Your task to perform on an android device: turn off location history Image 0: 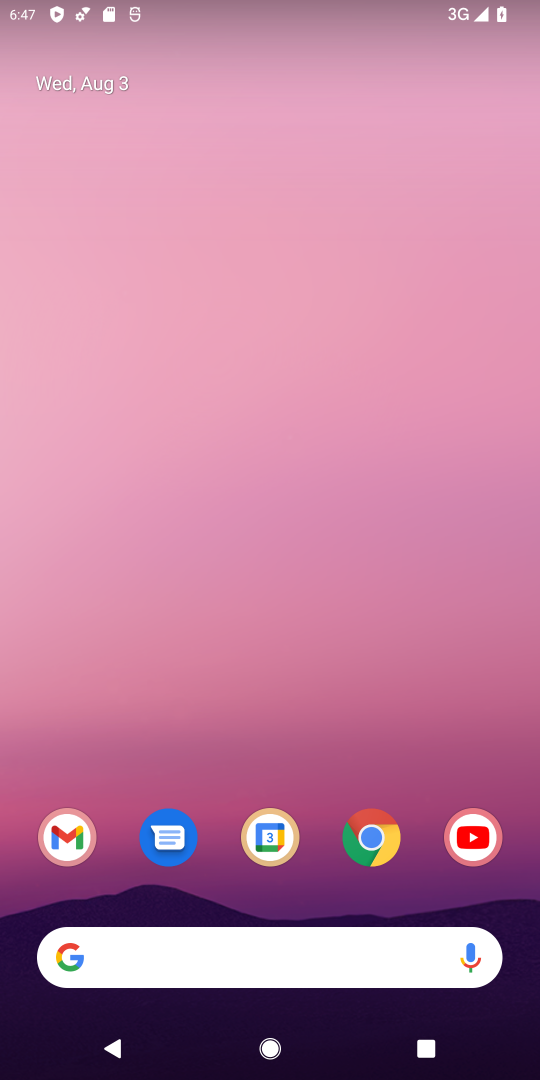
Step 0: press home button
Your task to perform on an android device: turn off location history Image 1: 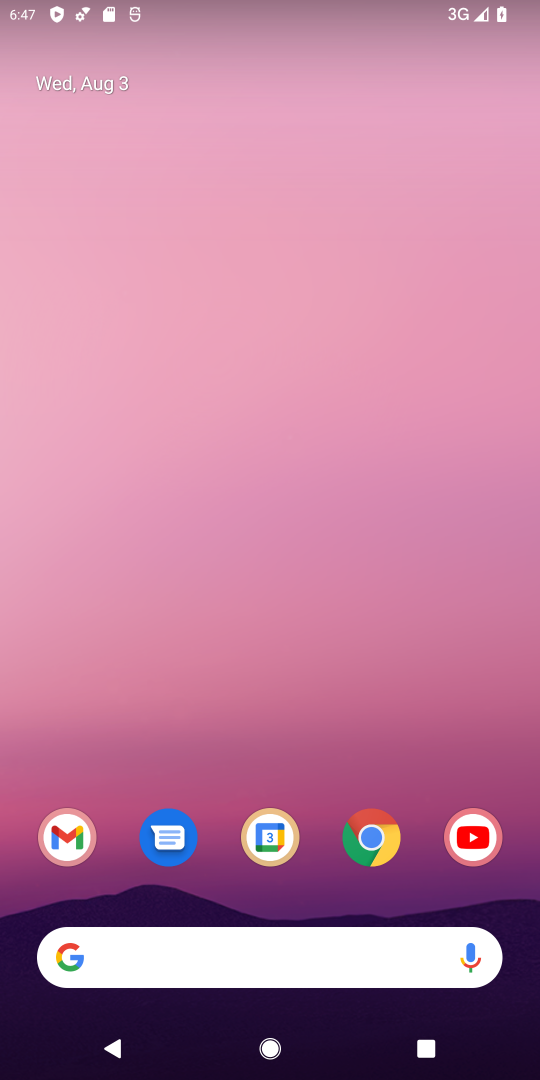
Step 1: drag from (307, 772) to (292, 61)
Your task to perform on an android device: turn off location history Image 2: 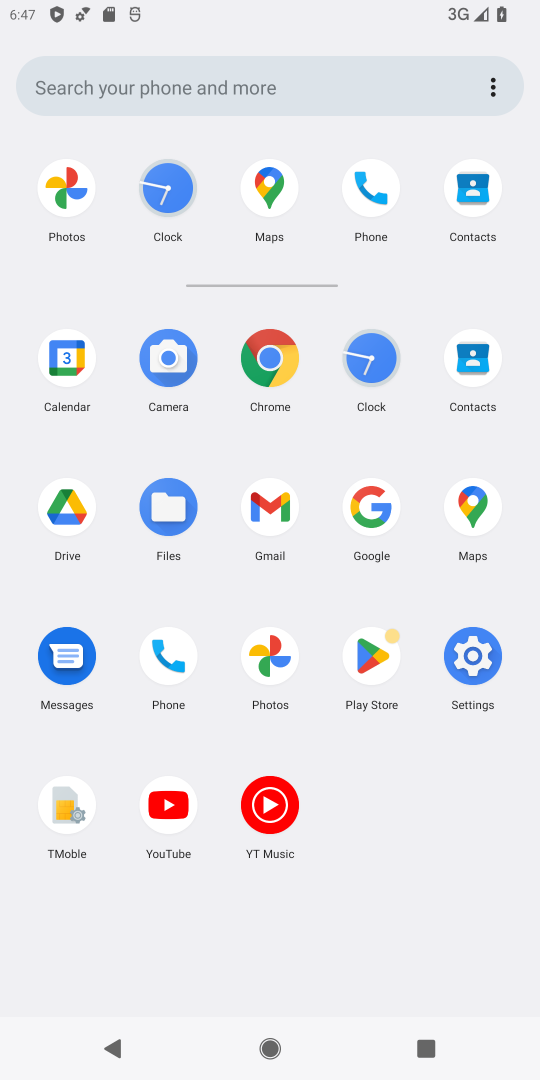
Step 2: click (461, 637)
Your task to perform on an android device: turn off location history Image 3: 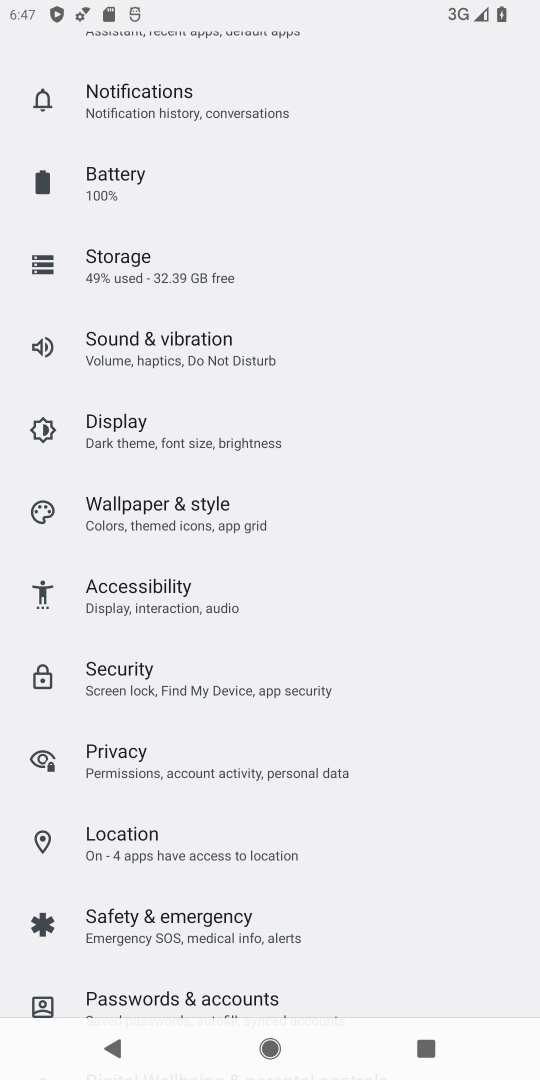
Step 3: click (129, 819)
Your task to perform on an android device: turn off location history Image 4: 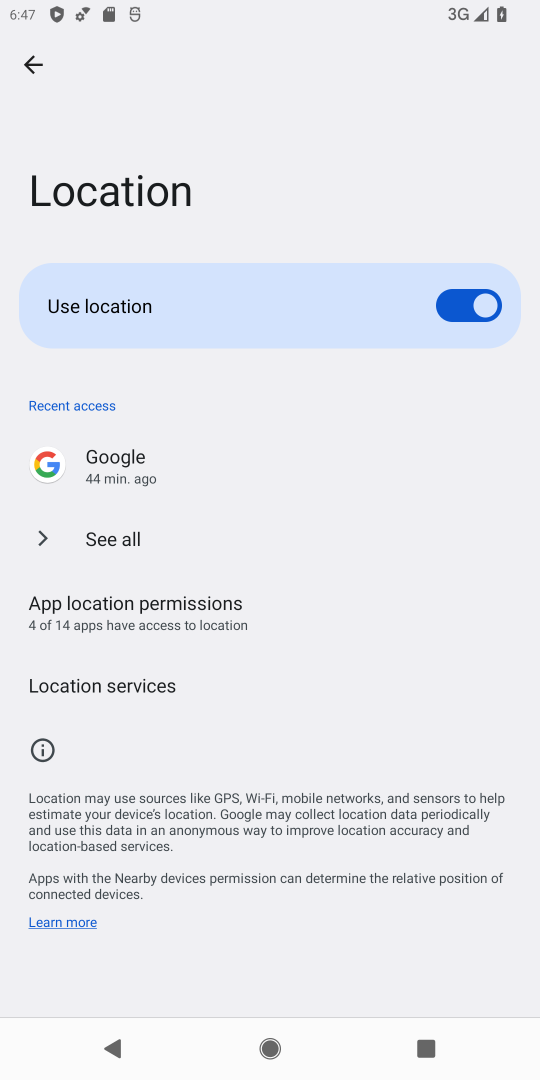
Step 4: click (57, 686)
Your task to perform on an android device: turn off location history Image 5: 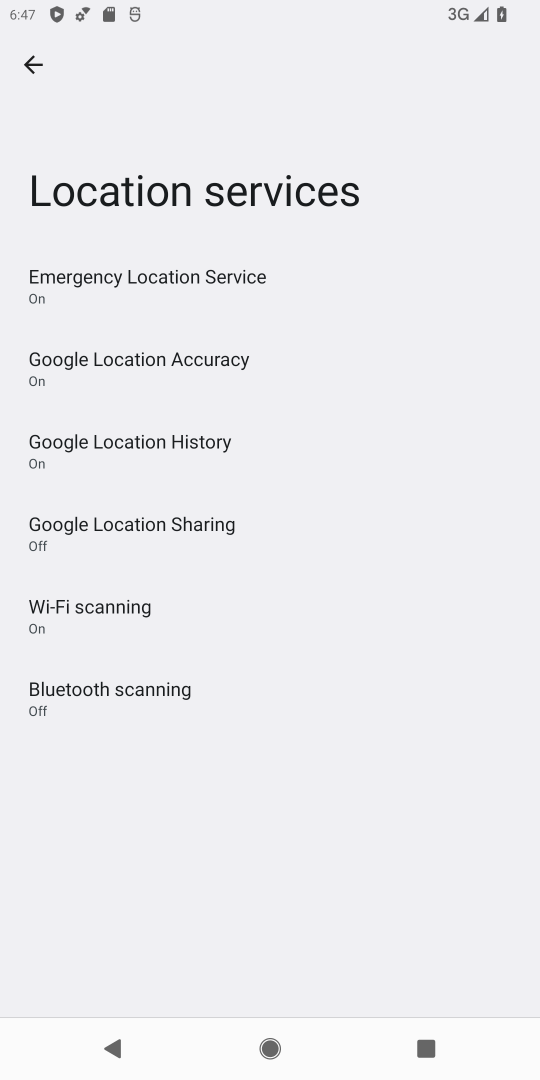
Step 5: click (171, 437)
Your task to perform on an android device: turn off location history Image 6: 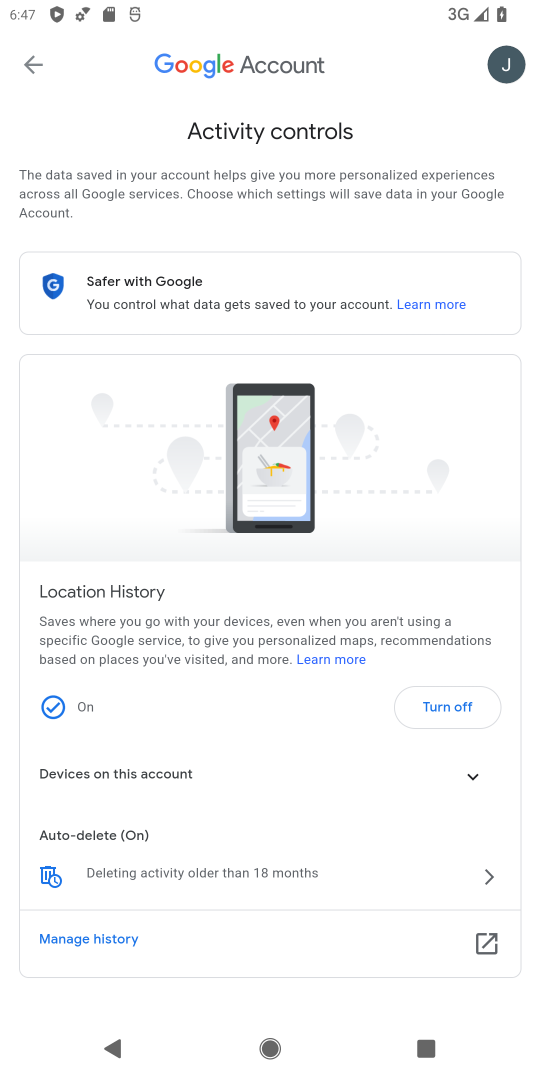
Step 6: click (453, 704)
Your task to perform on an android device: turn off location history Image 7: 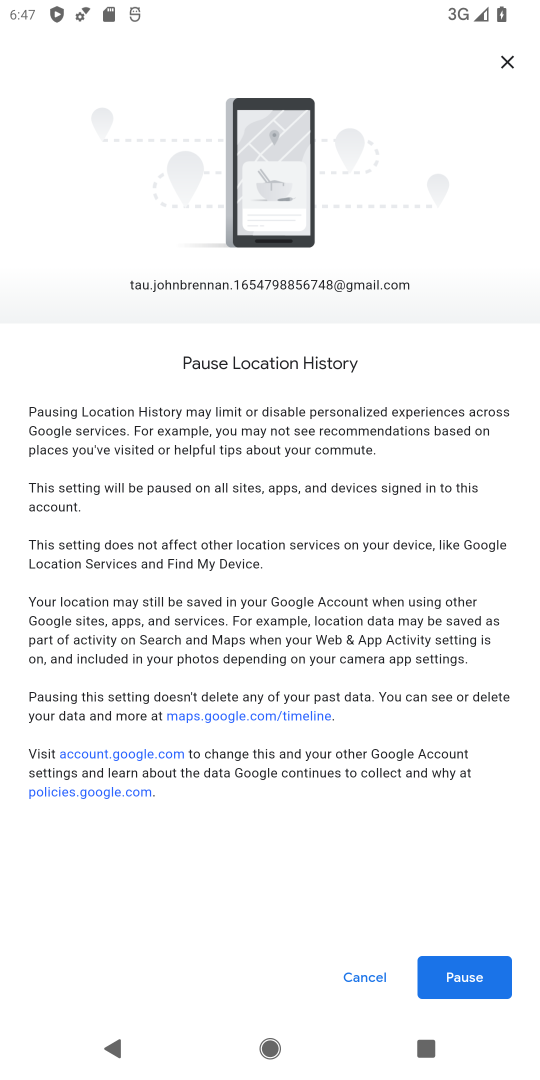
Step 7: click (459, 979)
Your task to perform on an android device: turn off location history Image 8: 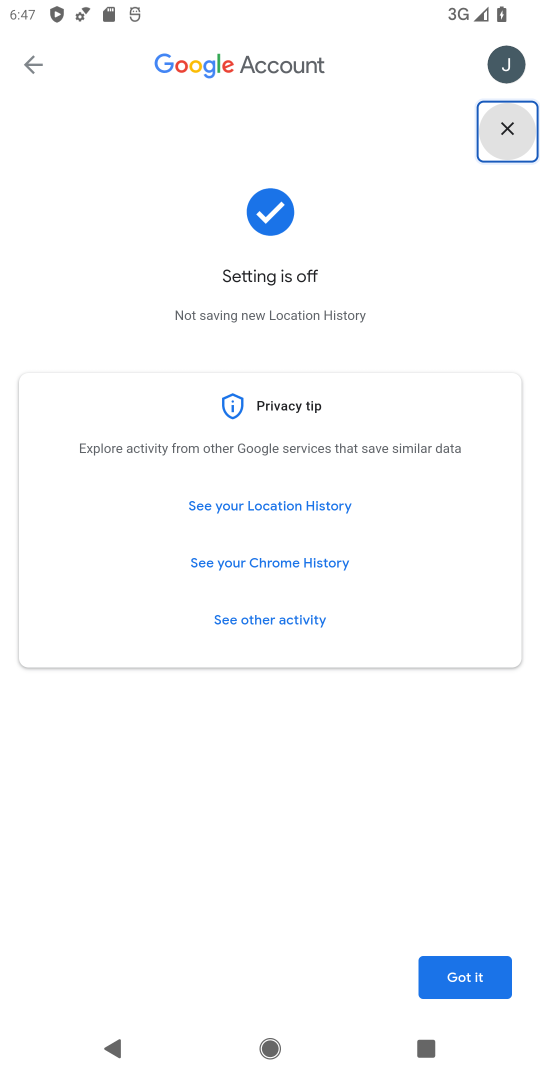
Step 8: click (459, 979)
Your task to perform on an android device: turn off location history Image 9: 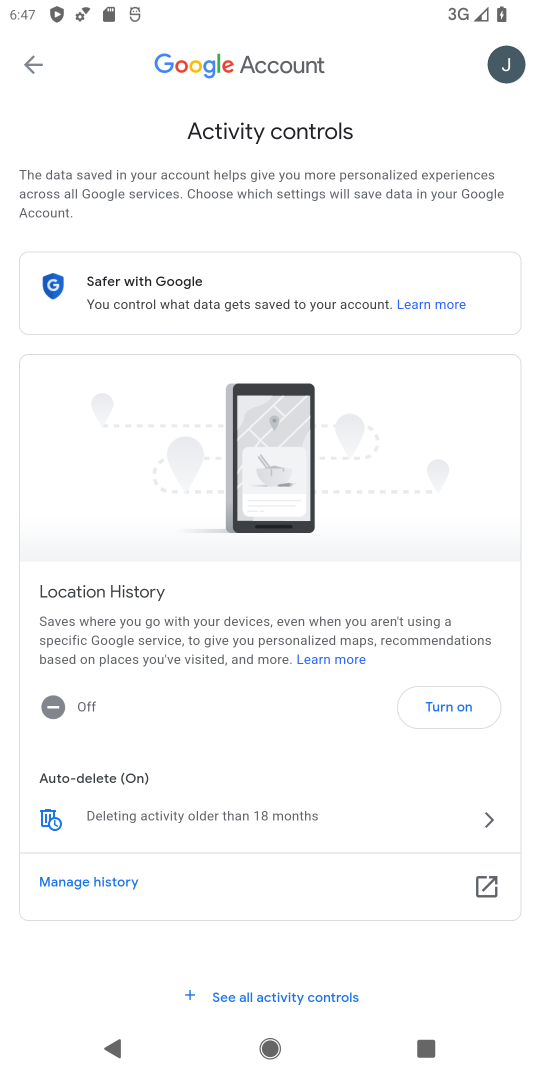
Step 9: task complete